Your task to perform on an android device: empty trash in google photos Image 0: 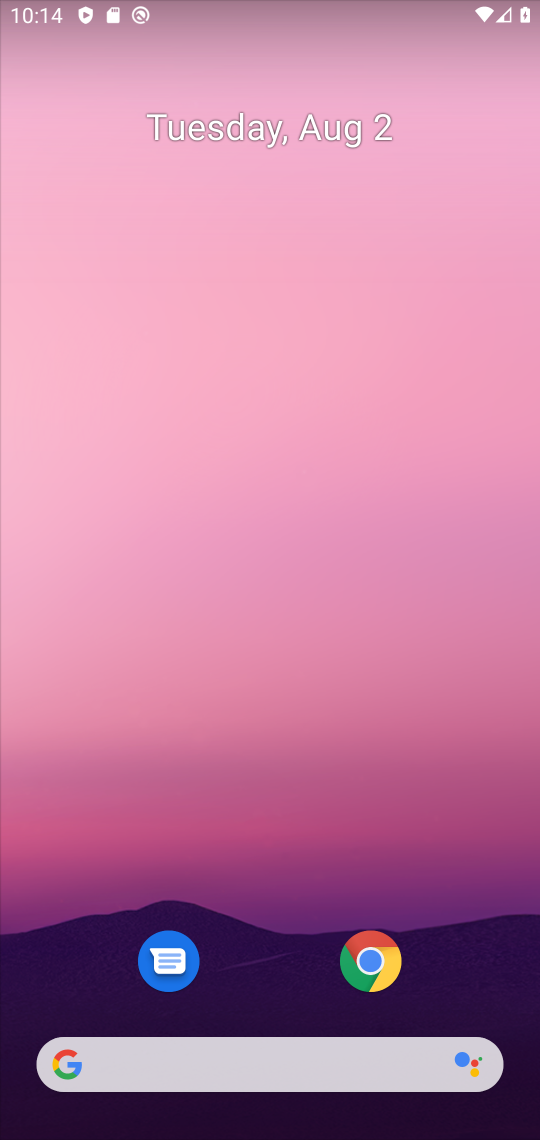
Step 0: drag from (273, 993) to (318, 91)
Your task to perform on an android device: empty trash in google photos Image 1: 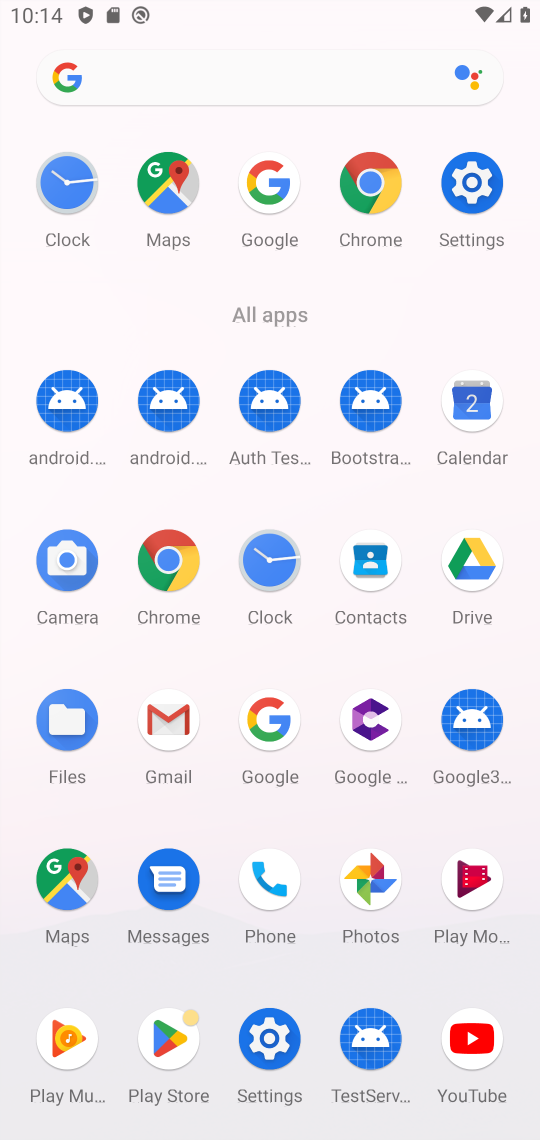
Step 1: click (369, 864)
Your task to perform on an android device: empty trash in google photos Image 2: 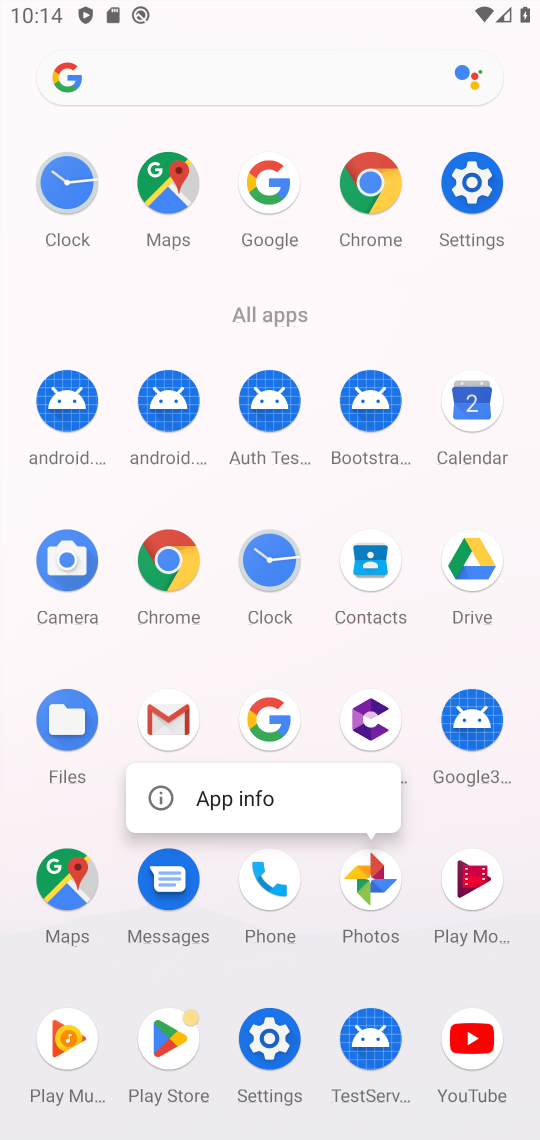
Step 2: click (374, 874)
Your task to perform on an android device: empty trash in google photos Image 3: 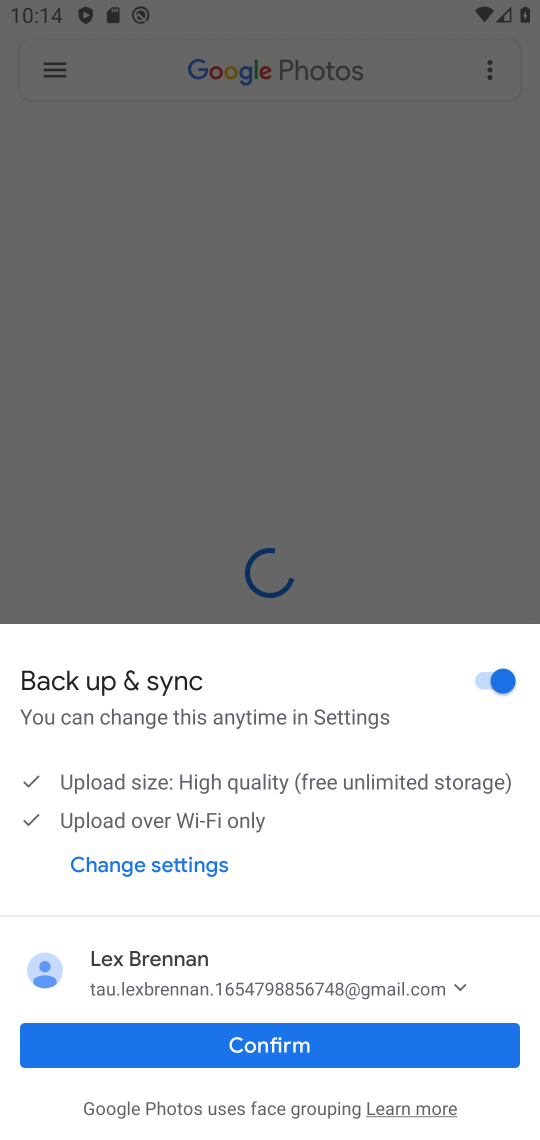
Step 3: click (271, 1045)
Your task to perform on an android device: empty trash in google photos Image 4: 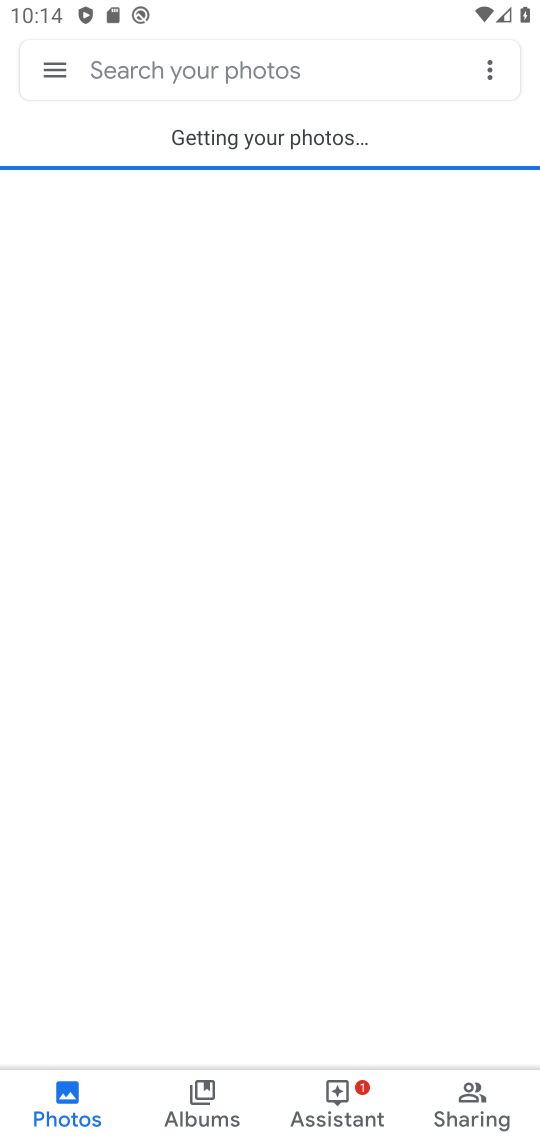
Step 4: click (48, 57)
Your task to perform on an android device: empty trash in google photos Image 5: 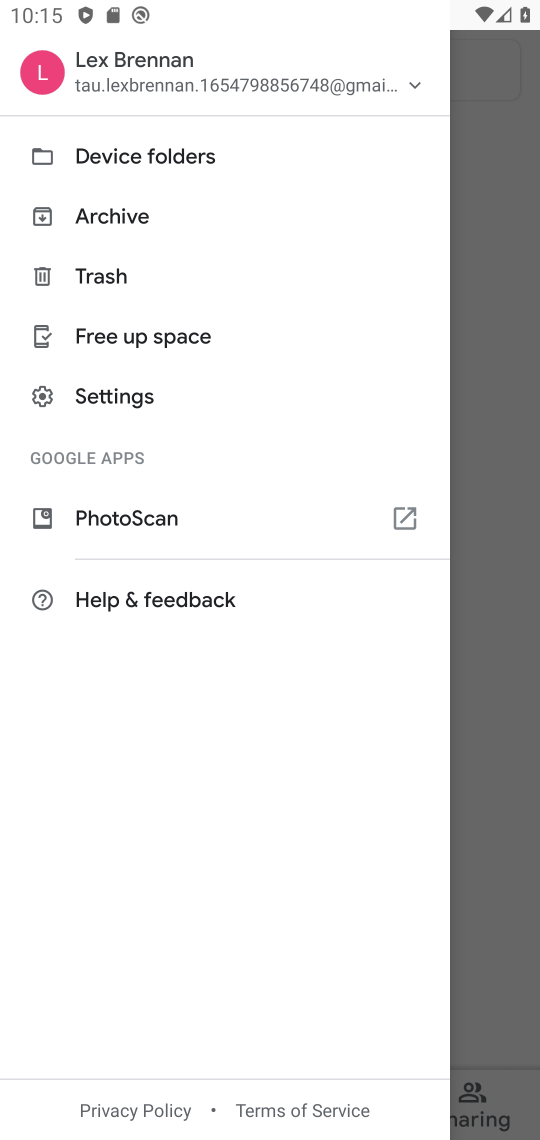
Step 5: click (135, 269)
Your task to perform on an android device: empty trash in google photos Image 6: 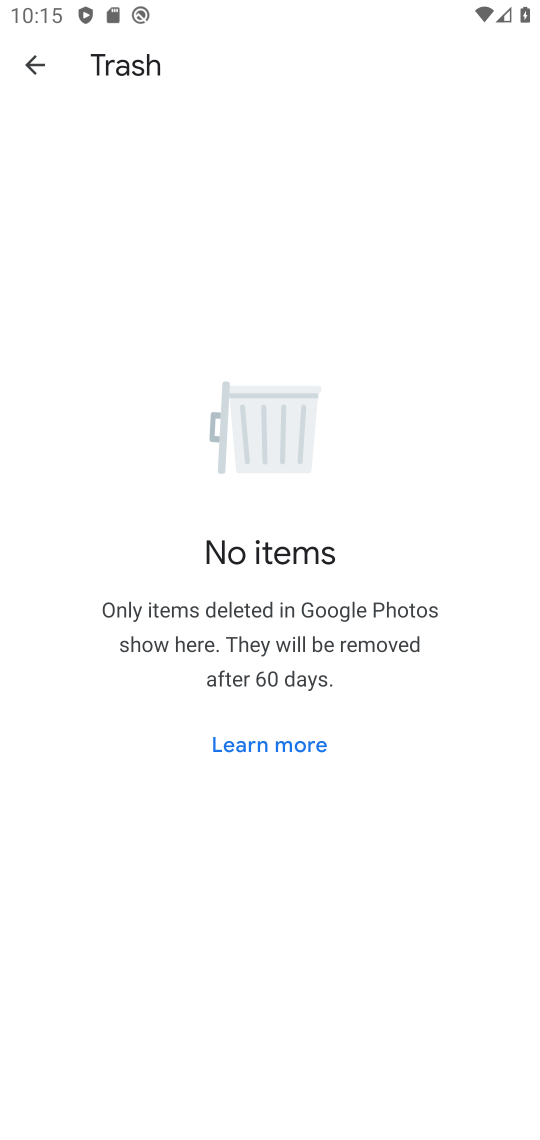
Step 6: task complete